Your task to perform on an android device: turn off notifications settings in the gmail app Image 0: 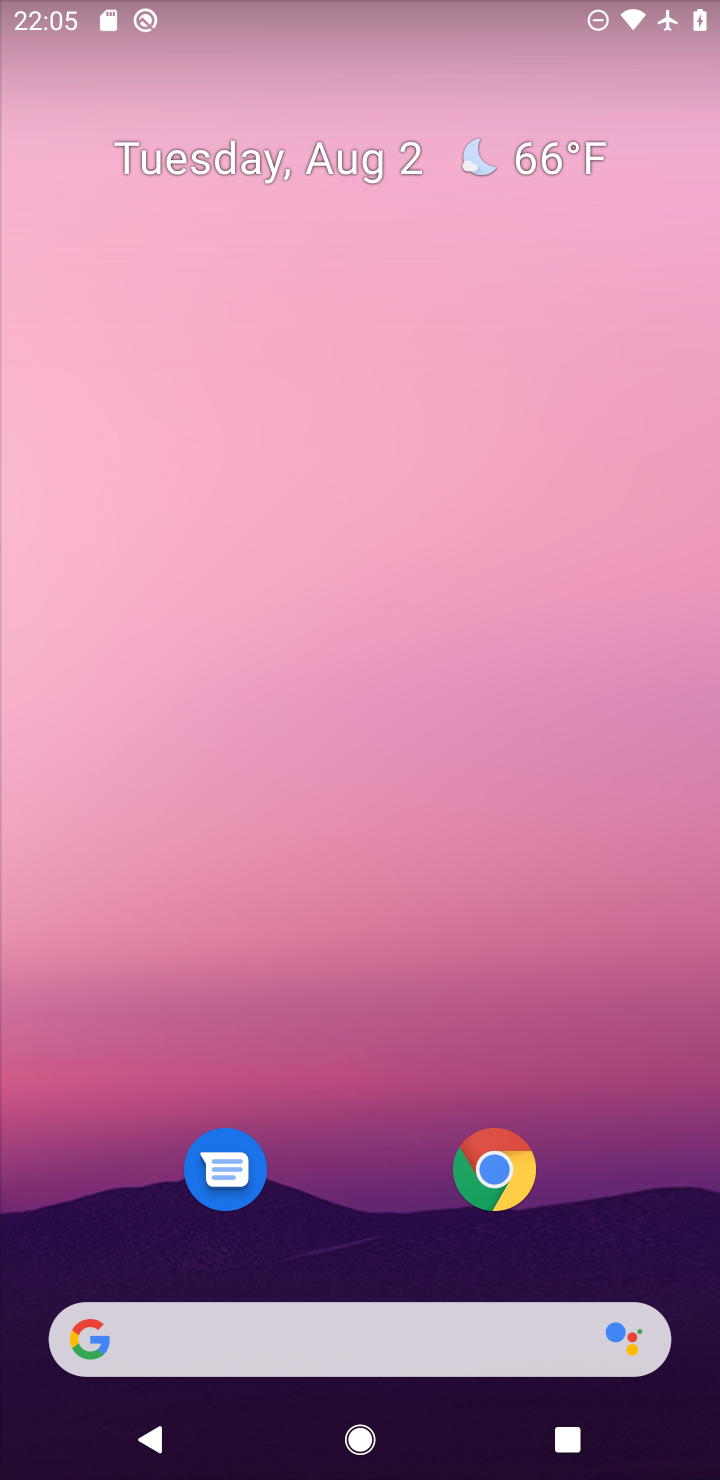
Step 0: drag from (385, 357) to (382, 148)
Your task to perform on an android device: turn off notifications settings in the gmail app Image 1: 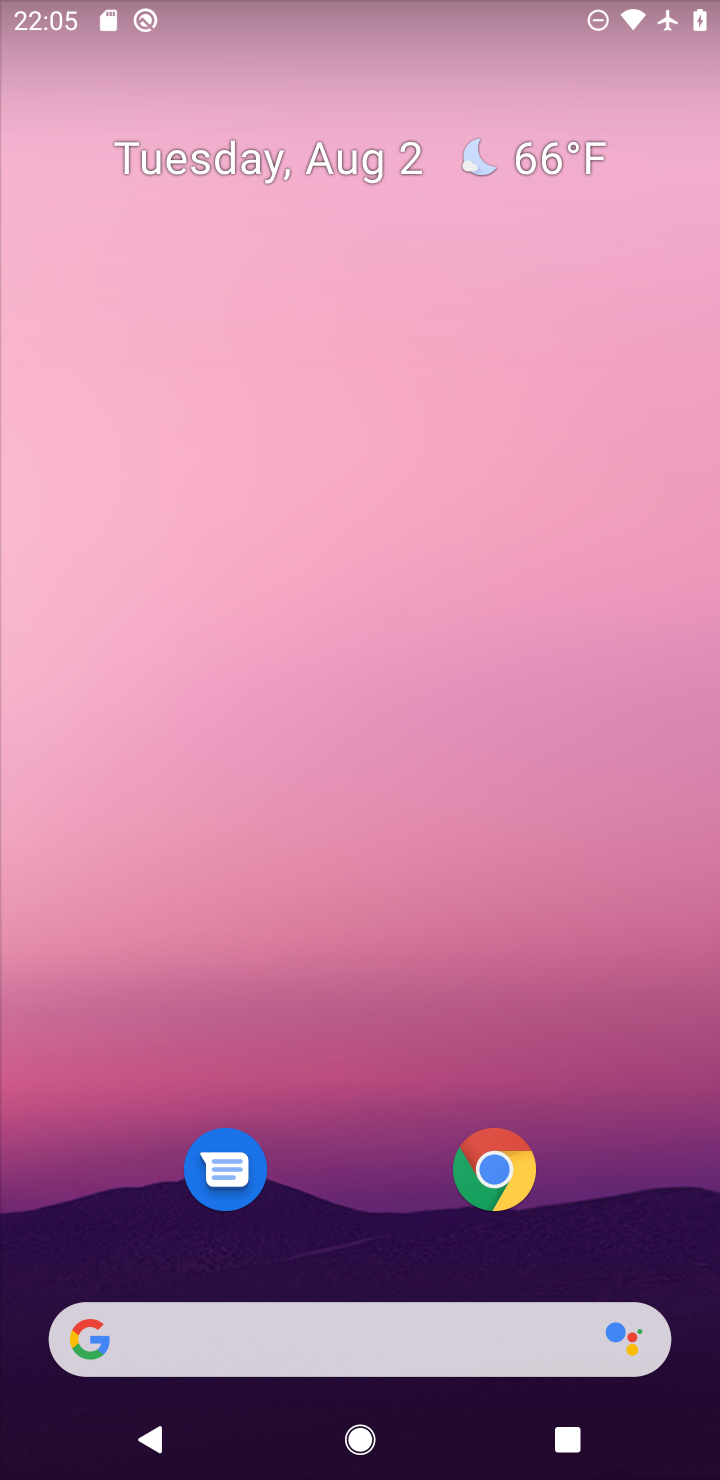
Step 1: drag from (385, 1065) to (392, 177)
Your task to perform on an android device: turn off notifications settings in the gmail app Image 2: 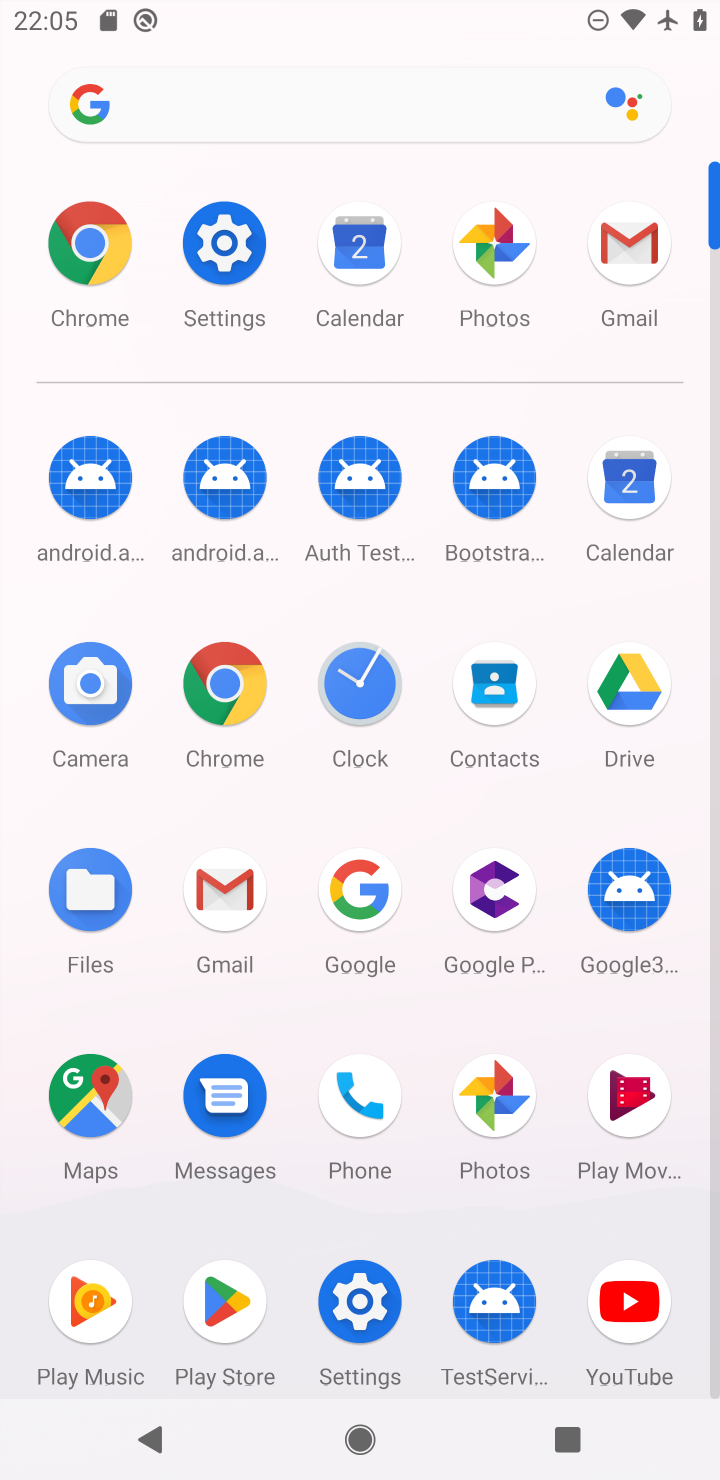
Step 2: click (230, 891)
Your task to perform on an android device: turn off notifications settings in the gmail app Image 3: 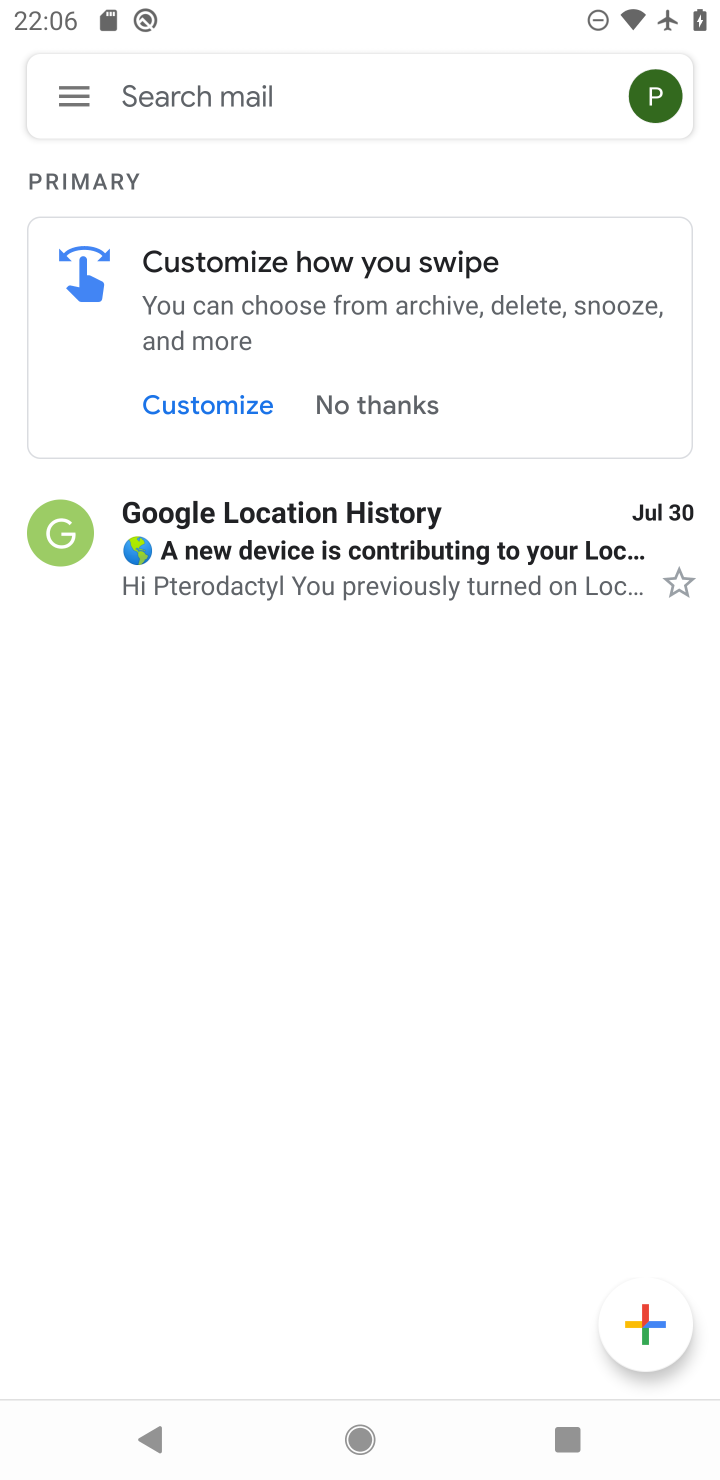
Step 3: click (67, 87)
Your task to perform on an android device: turn off notifications settings in the gmail app Image 4: 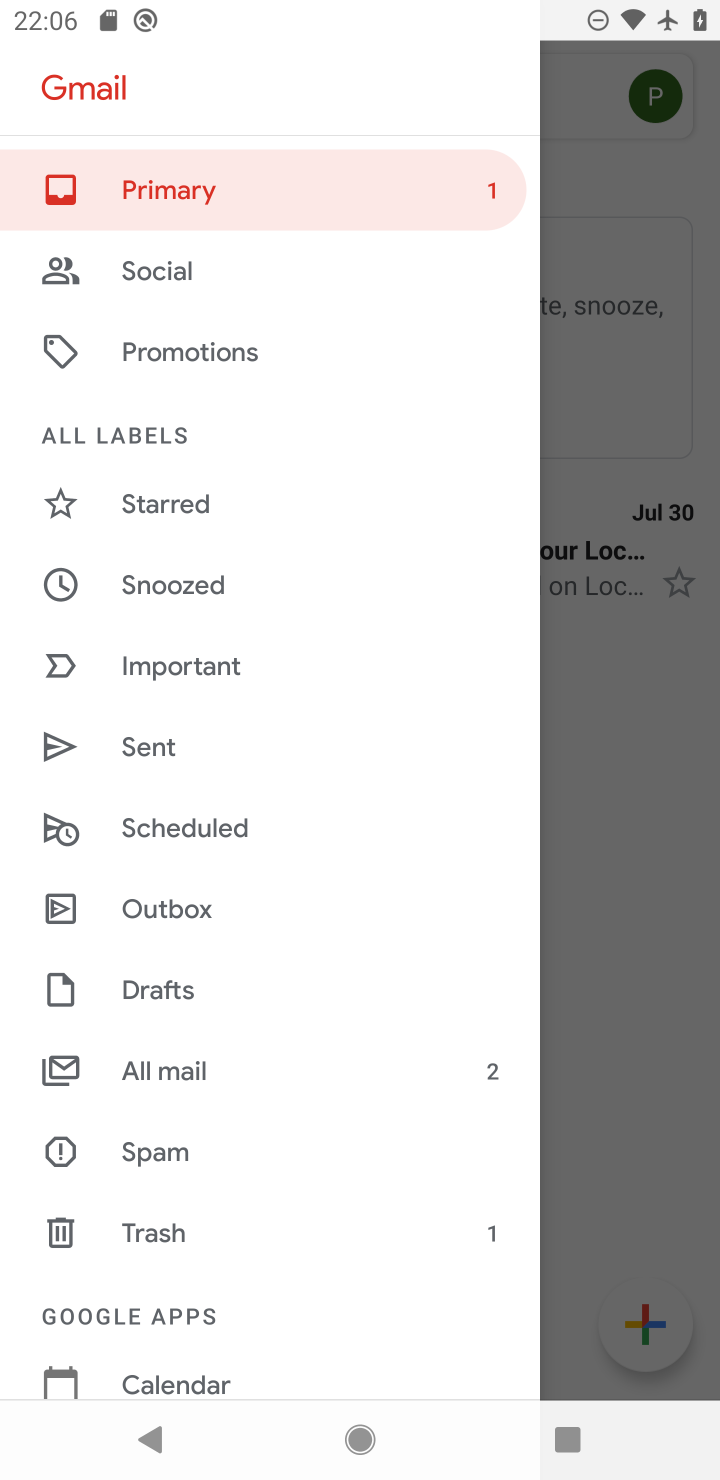
Step 4: drag from (186, 1254) to (193, 676)
Your task to perform on an android device: turn off notifications settings in the gmail app Image 5: 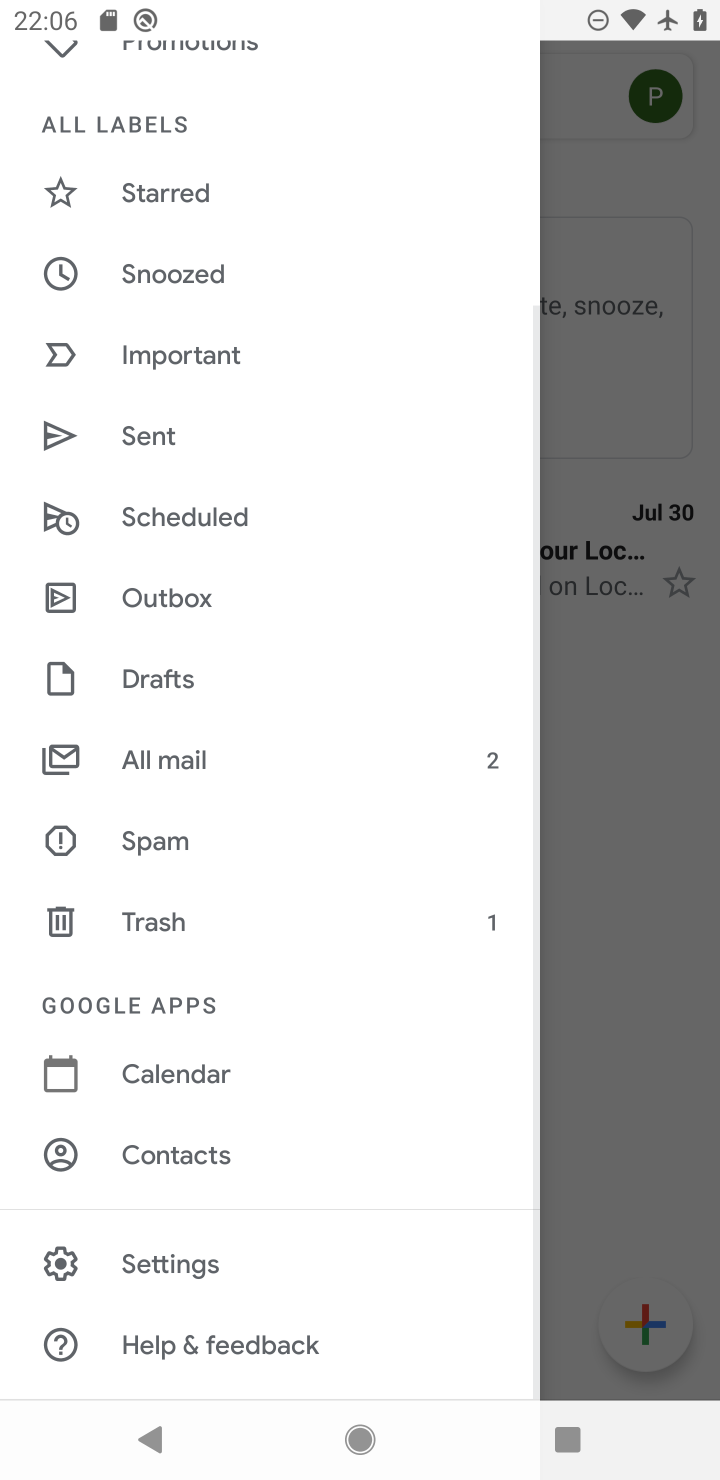
Step 5: click (154, 1263)
Your task to perform on an android device: turn off notifications settings in the gmail app Image 6: 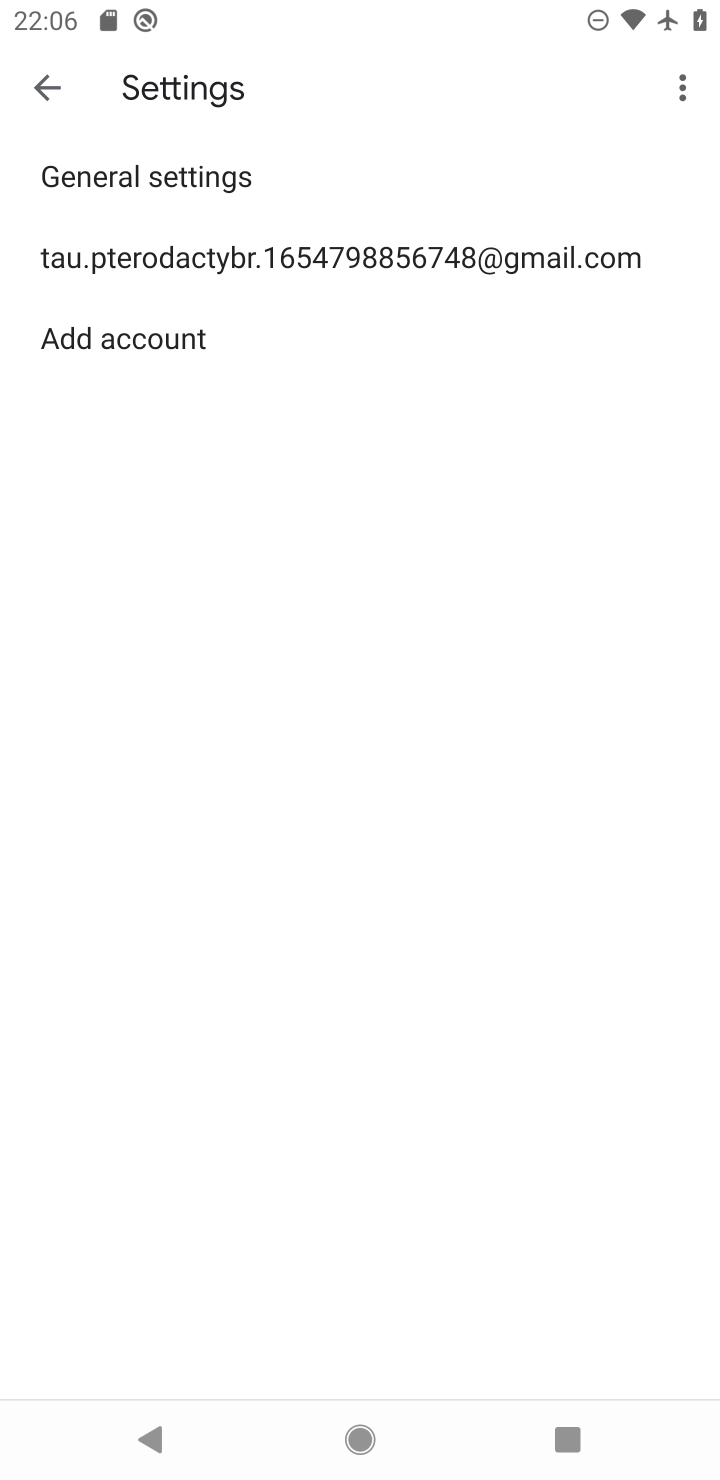
Step 6: click (281, 260)
Your task to perform on an android device: turn off notifications settings in the gmail app Image 7: 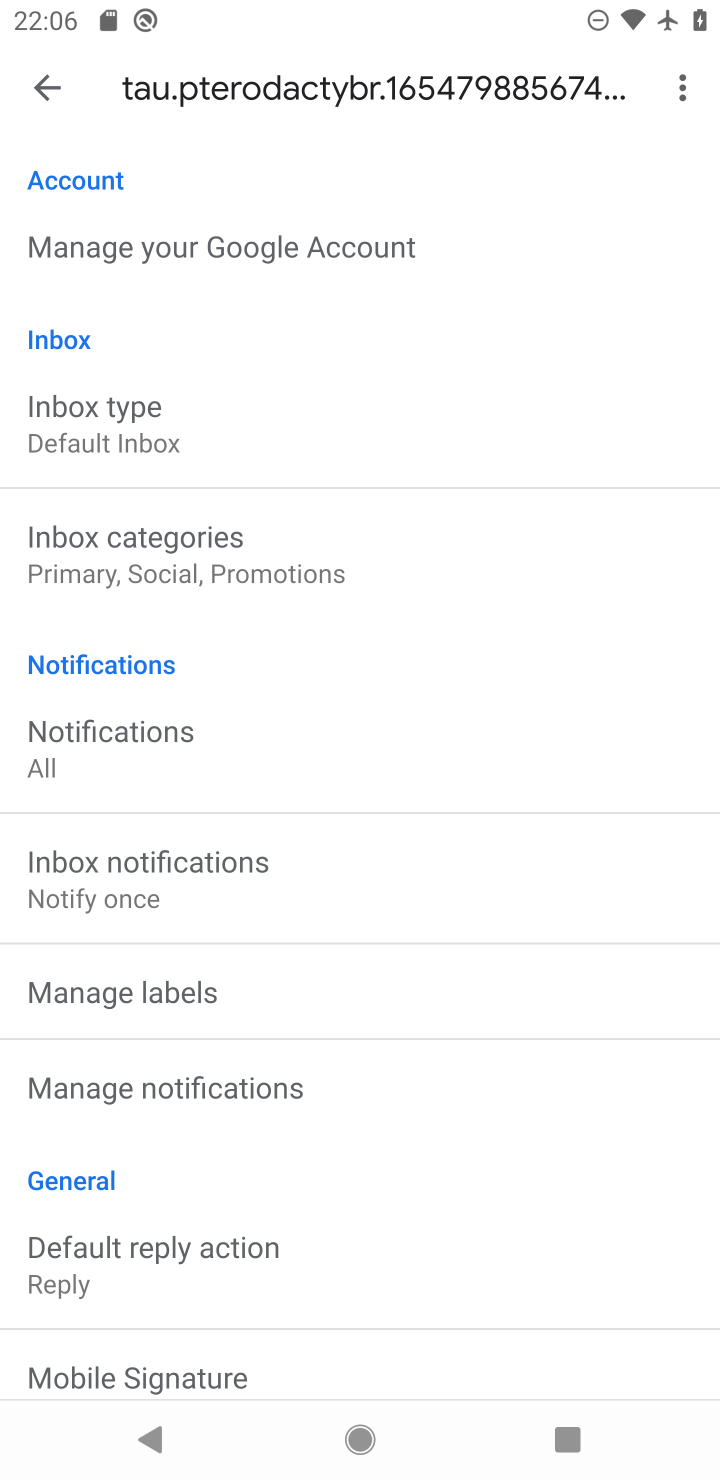
Step 7: click (89, 771)
Your task to perform on an android device: turn off notifications settings in the gmail app Image 8: 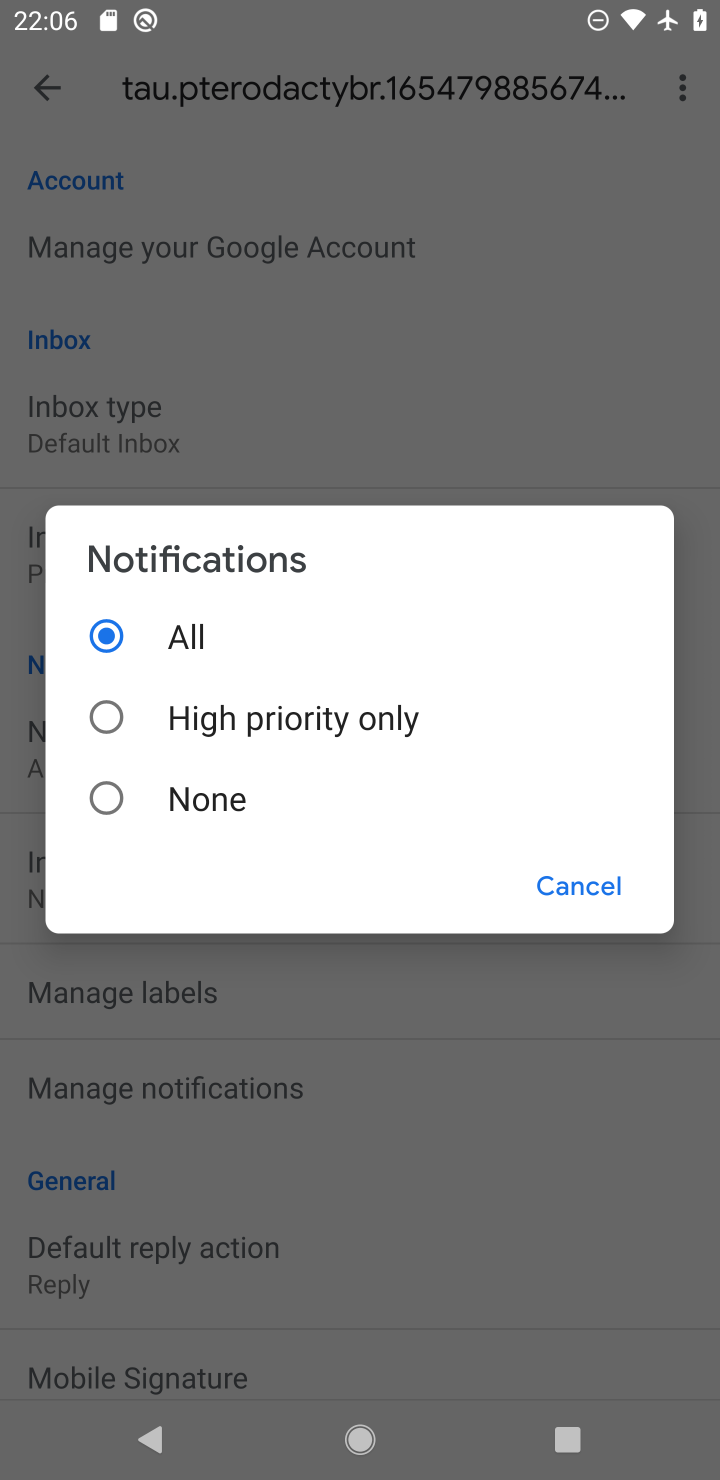
Step 8: click (106, 792)
Your task to perform on an android device: turn off notifications settings in the gmail app Image 9: 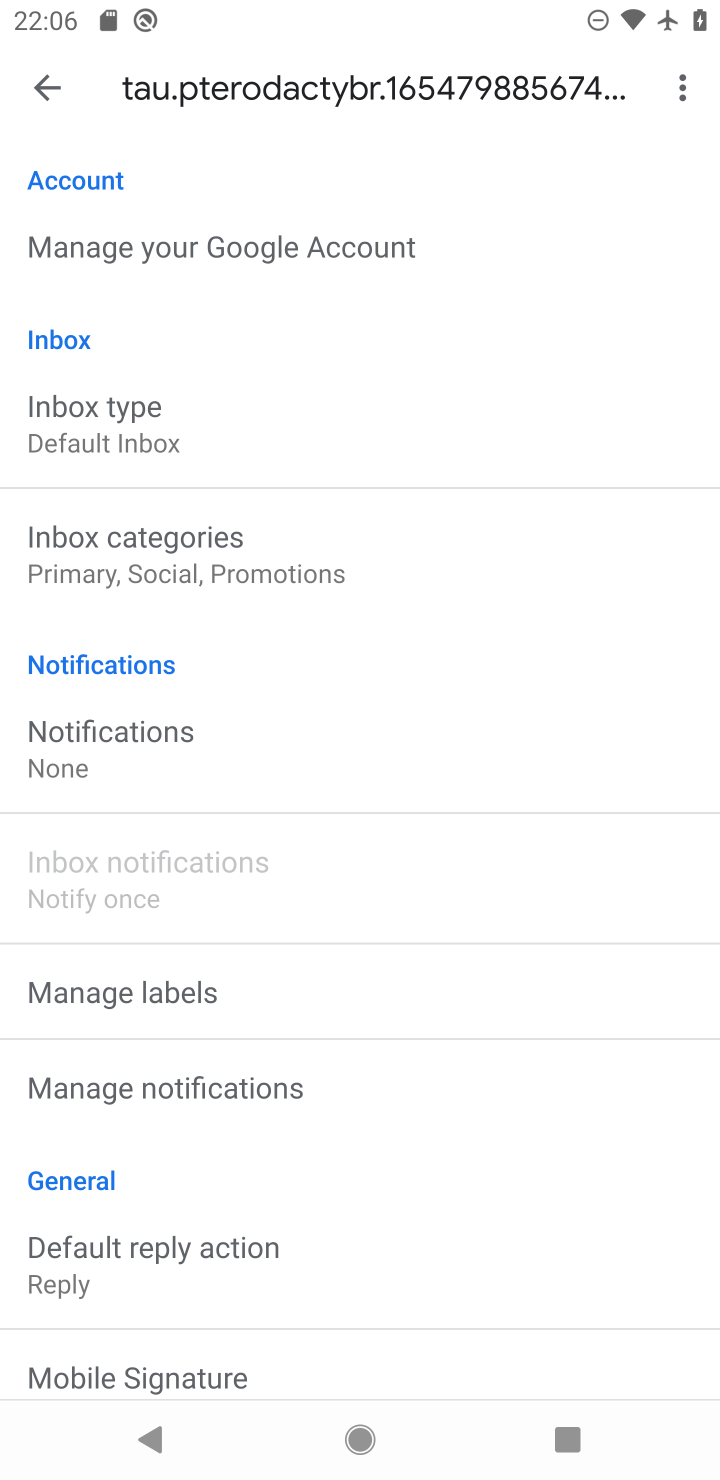
Step 9: task complete